Your task to perform on an android device: turn on priority inbox in the gmail app Image 0: 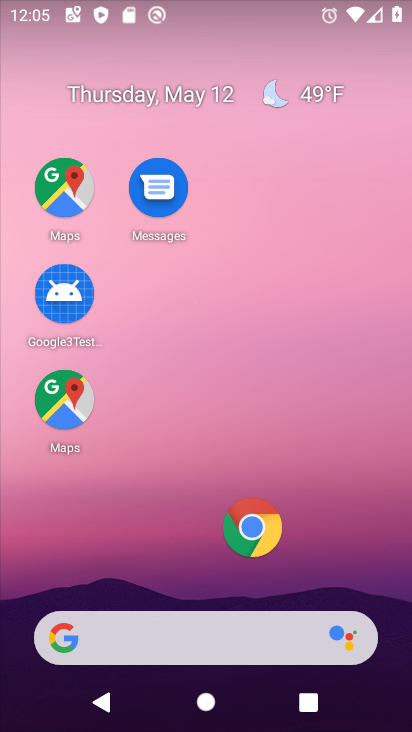
Step 0: drag from (175, 579) to (224, 12)
Your task to perform on an android device: turn on priority inbox in the gmail app Image 1: 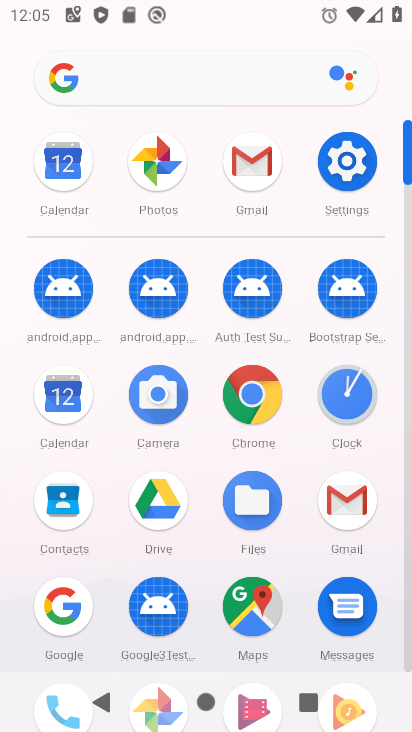
Step 1: click (356, 491)
Your task to perform on an android device: turn on priority inbox in the gmail app Image 2: 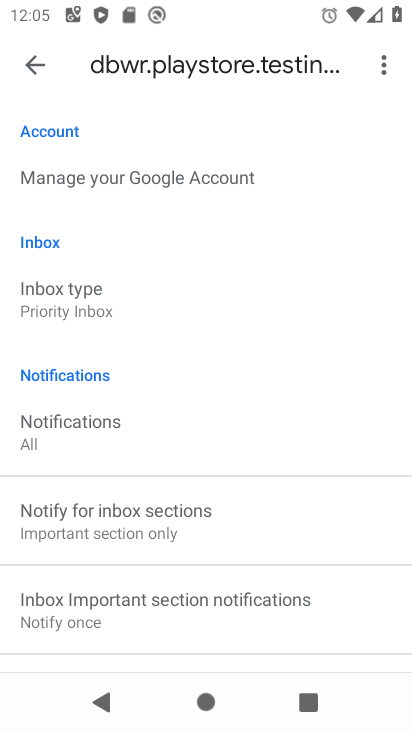
Step 2: click (20, 311)
Your task to perform on an android device: turn on priority inbox in the gmail app Image 3: 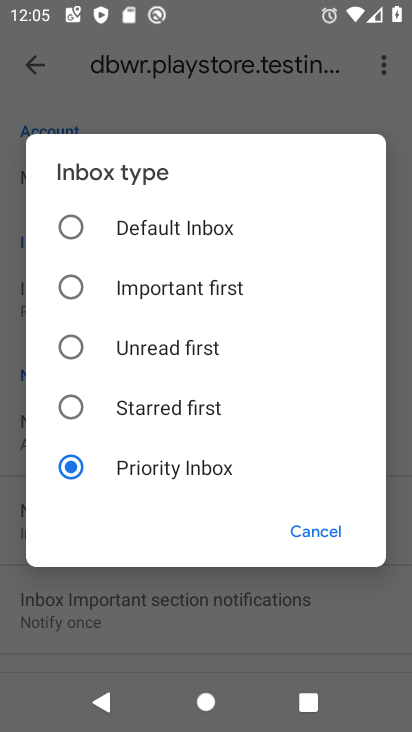
Step 3: click (137, 474)
Your task to perform on an android device: turn on priority inbox in the gmail app Image 4: 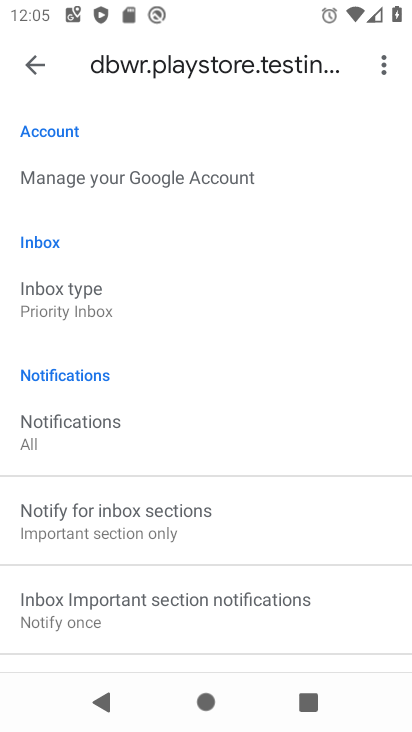
Step 4: task complete